Your task to perform on an android device: Go to Maps Image 0: 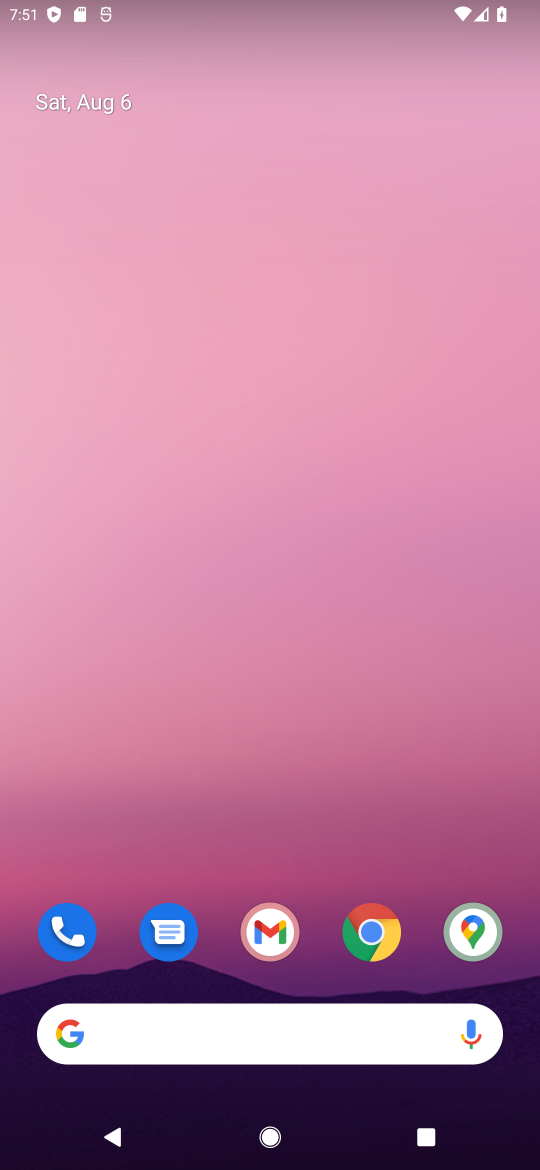
Step 0: drag from (320, 971) to (431, 40)
Your task to perform on an android device: Go to Maps Image 1: 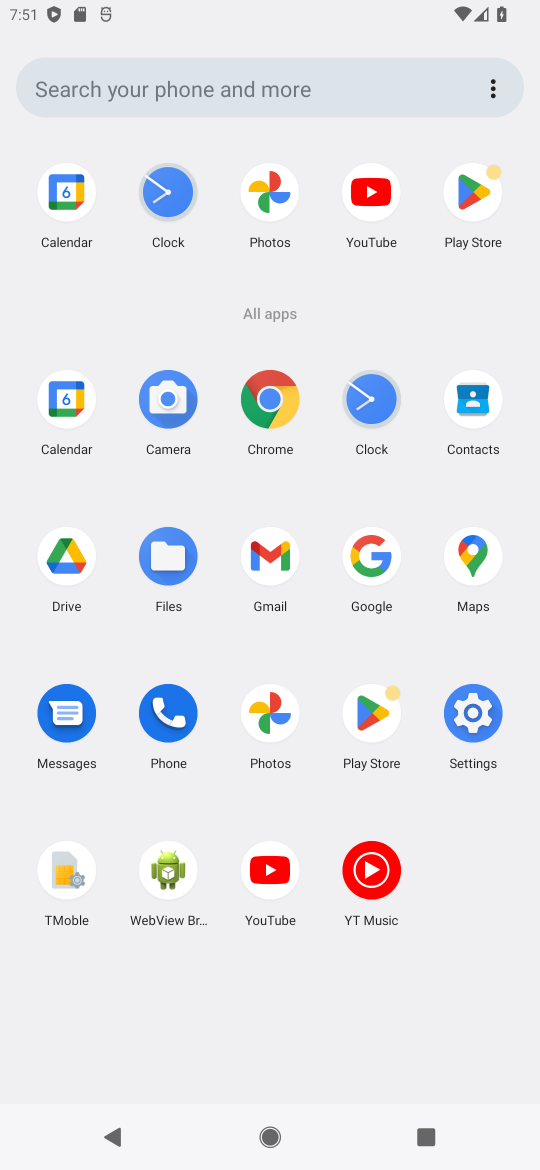
Step 1: click (468, 556)
Your task to perform on an android device: Go to Maps Image 2: 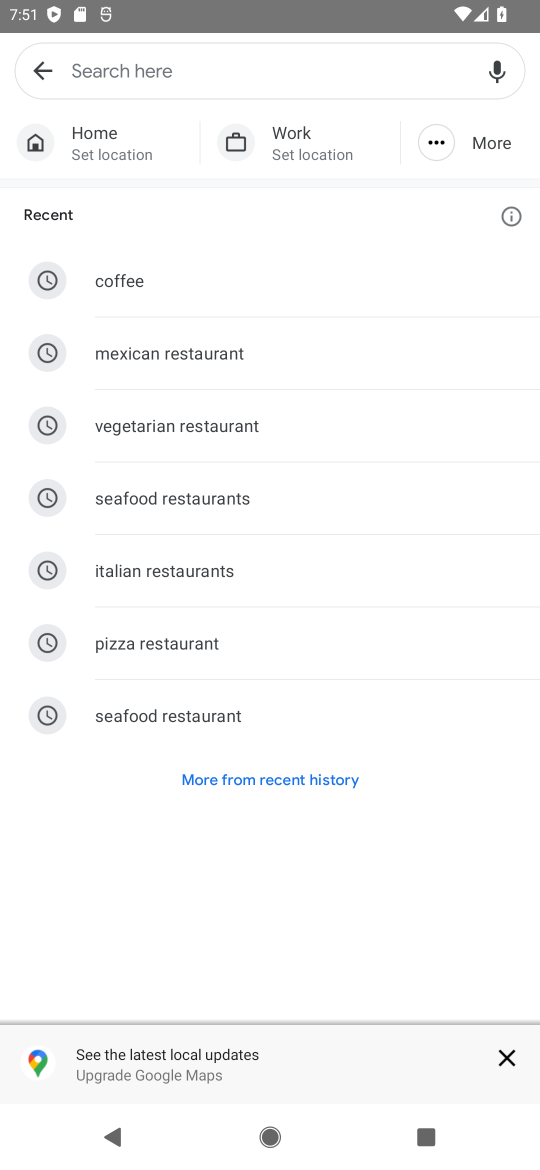
Step 2: click (39, 77)
Your task to perform on an android device: Go to Maps Image 3: 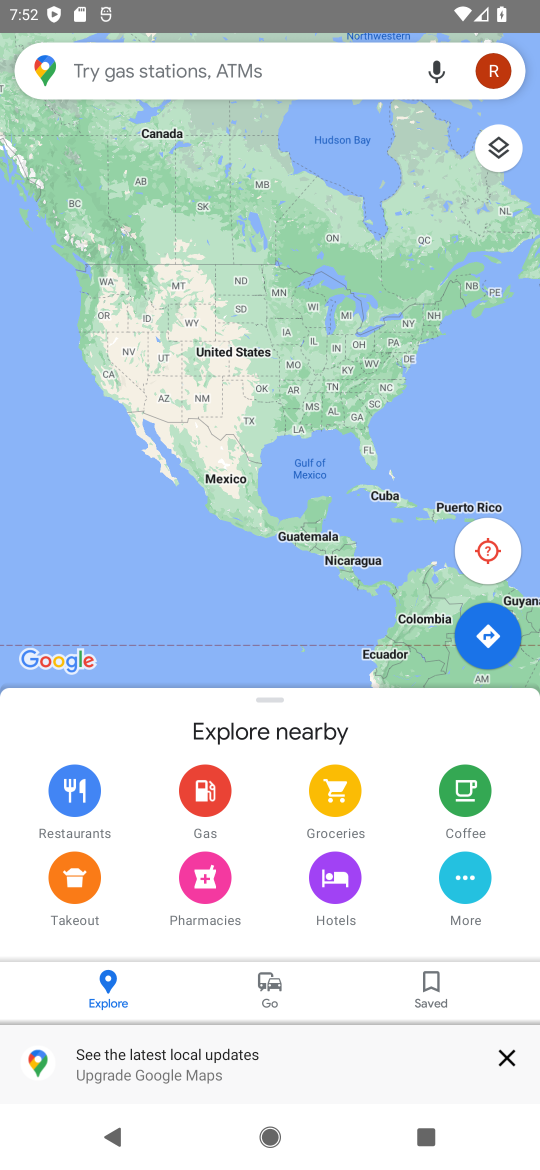
Step 3: task complete